Your task to perform on an android device: Open Yahoo.com Image 0: 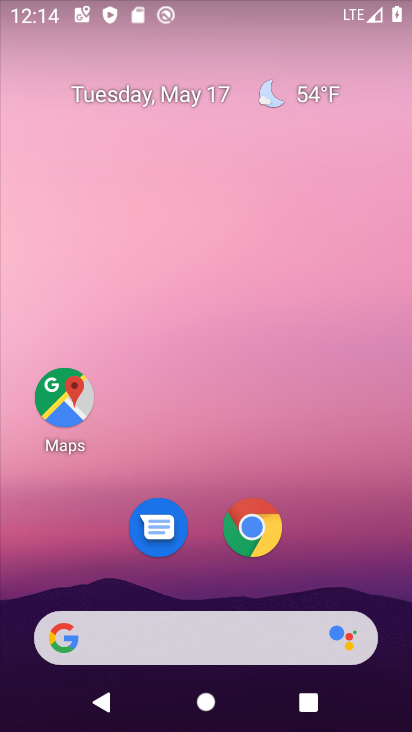
Step 0: drag from (249, 630) to (202, 183)
Your task to perform on an android device: Open Yahoo.com Image 1: 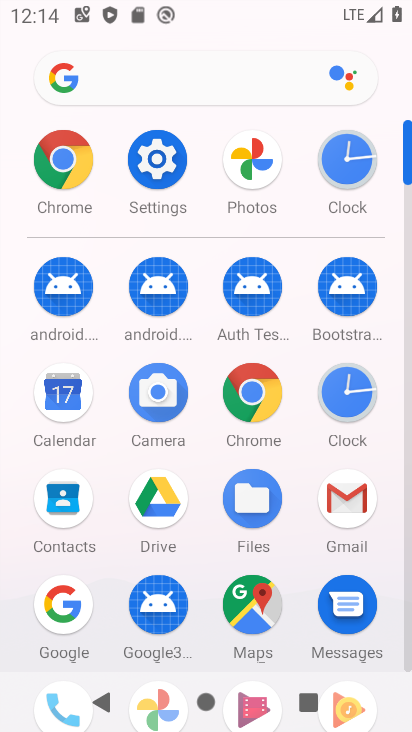
Step 1: click (58, 162)
Your task to perform on an android device: Open Yahoo.com Image 2: 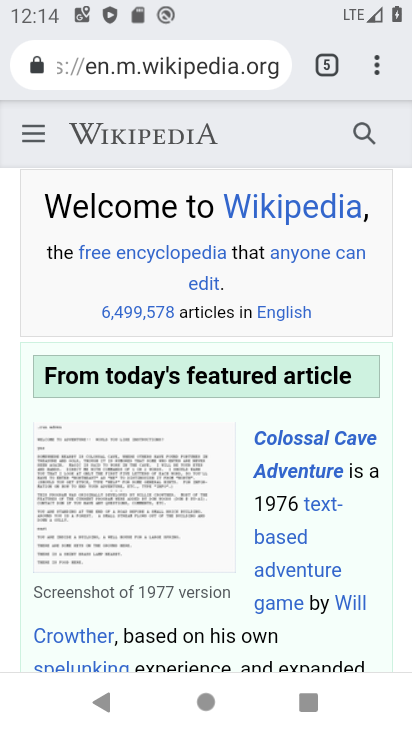
Step 2: click (215, 73)
Your task to perform on an android device: Open Yahoo.com Image 3: 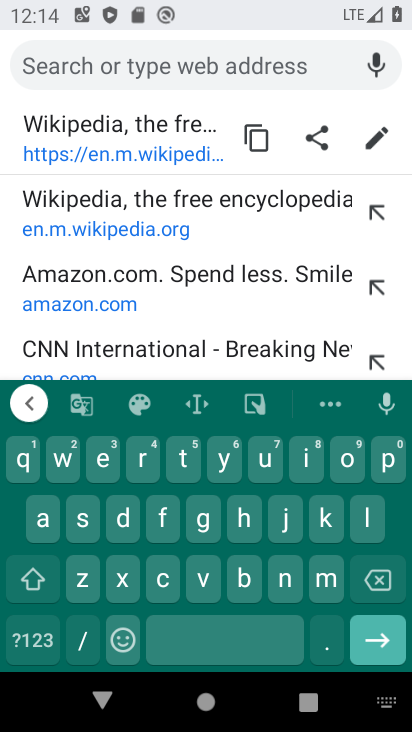
Step 3: click (214, 459)
Your task to perform on an android device: Open Yahoo.com Image 4: 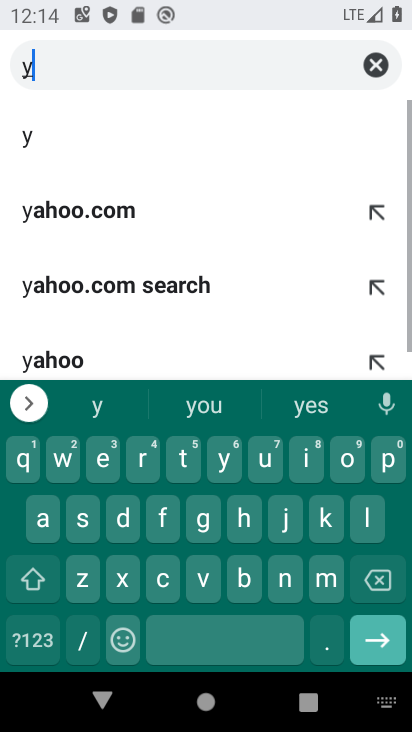
Step 4: click (113, 209)
Your task to perform on an android device: Open Yahoo.com Image 5: 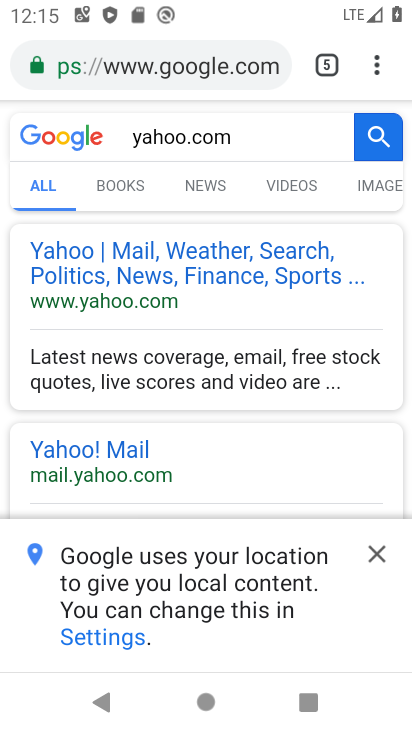
Step 5: click (156, 268)
Your task to perform on an android device: Open Yahoo.com Image 6: 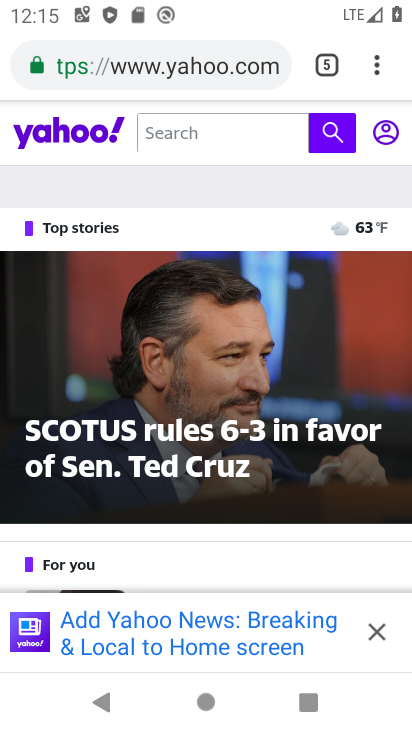
Step 6: task complete